Your task to perform on an android device: Open Youtube and go to the subscriptions tab Image 0: 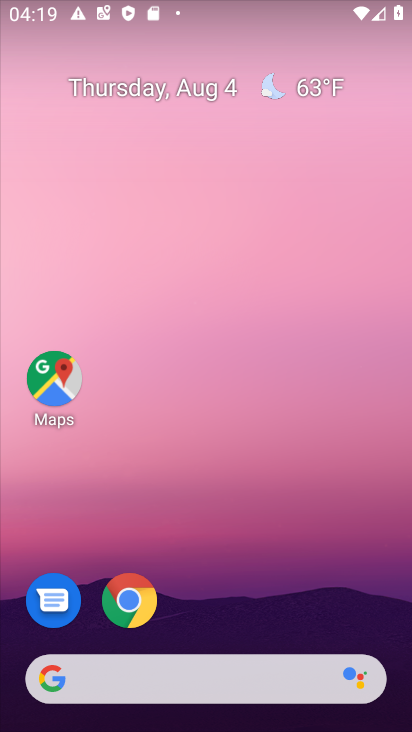
Step 0: drag from (267, 612) to (242, 202)
Your task to perform on an android device: Open Youtube and go to the subscriptions tab Image 1: 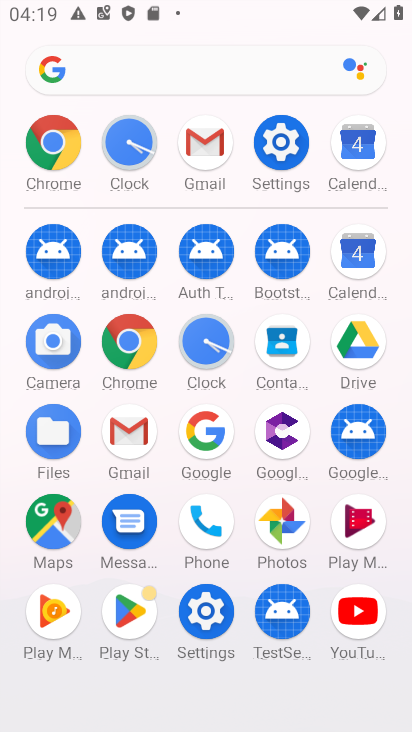
Step 1: click (361, 605)
Your task to perform on an android device: Open Youtube and go to the subscriptions tab Image 2: 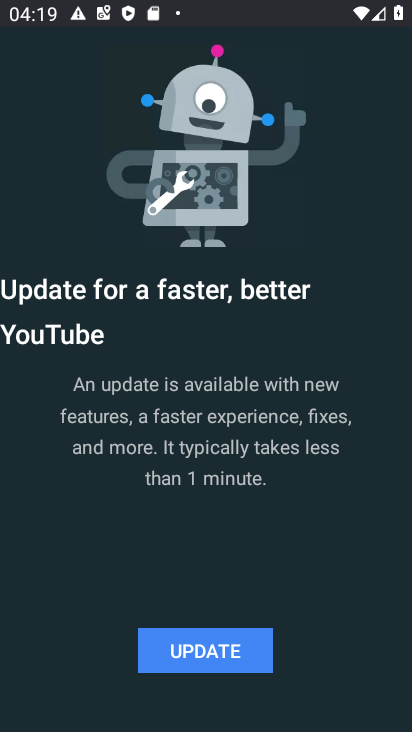
Step 2: click (202, 658)
Your task to perform on an android device: Open Youtube and go to the subscriptions tab Image 3: 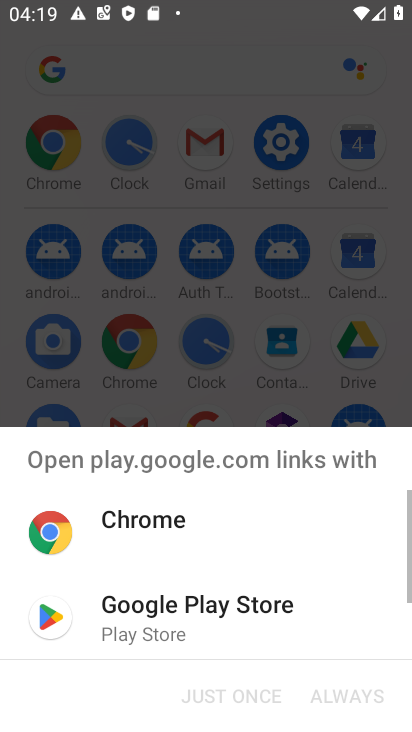
Step 3: click (194, 627)
Your task to perform on an android device: Open Youtube and go to the subscriptions tab Image 4: 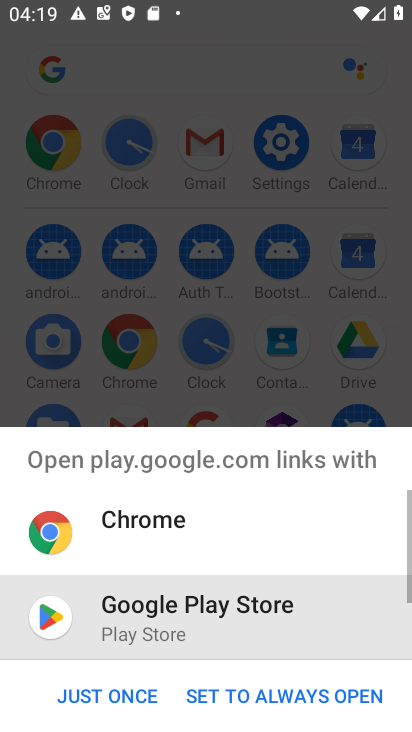
Step 4: click (133, 698)
Your task to perform on an android device: Open Youtube and go to the subscriptions tab Image 5: 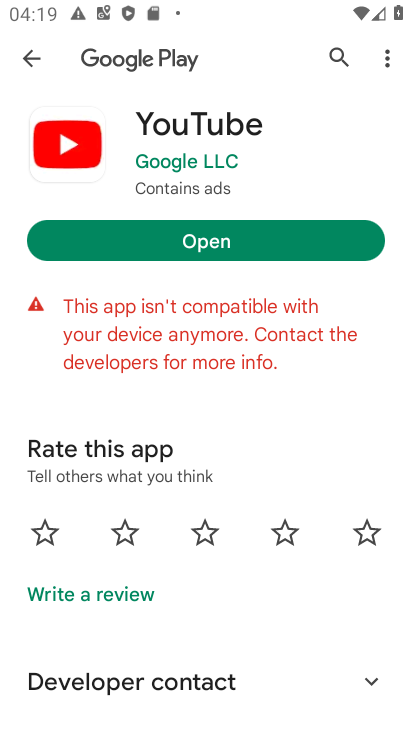
Step 5: task complete